Your task to perform on an android device: Clear the shopping cart on bestbuy.com. Image 0: 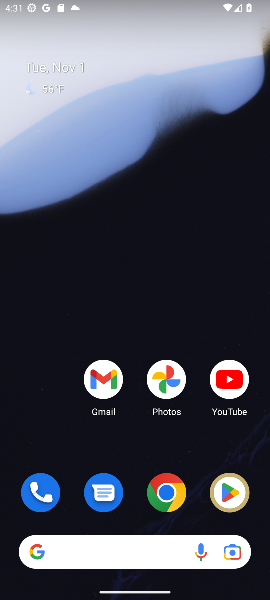
Step 0: drag from (127, 594) to (159, 166)
Your task to perform on an android device: Clear the shopping cart on bestbuy.com. Image 1: 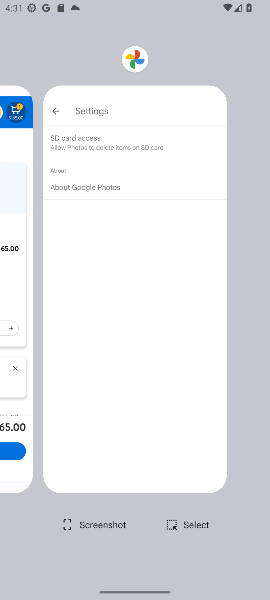
Step 1: drag from (40, 276) to (173, 281)
Your task to perform on an android device: Clear the shopping cart on bestbuy.com. Image 2: 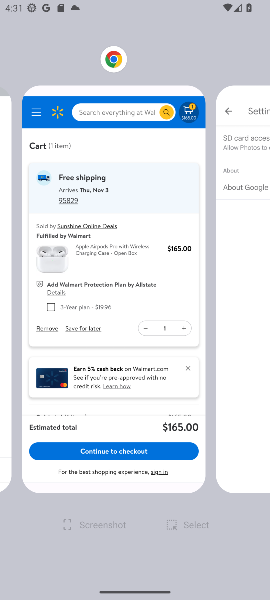
Step 2: drag from (19, 281) to (186, 282)
Your task to perform on an android device: Clear the shopping cart on bestbuy.com. Image 3: 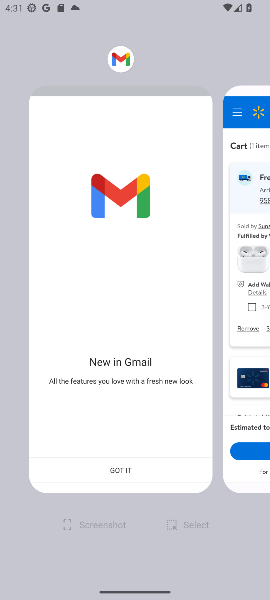
Step 3: drag from (52, 287) to (240, 301)
Your task to perform on an android device: Clear the shopping cart on bestbuy.com. Image 4: 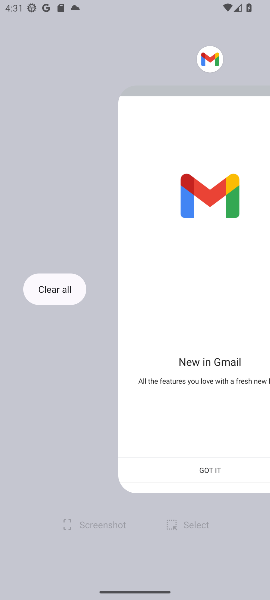
Step 4: drag from (37, 302) to (176, 298)
Your task to perform on an android device: Clear the shopping cart on bestbuy.com. Image 5: 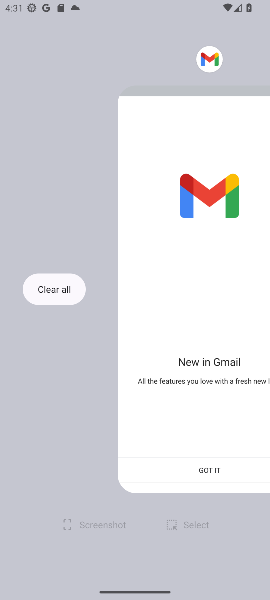
Step 5: click (63, 279)
Your task to perform on an android device: Clear the shopping cart on bestbuy.com. Image 6: 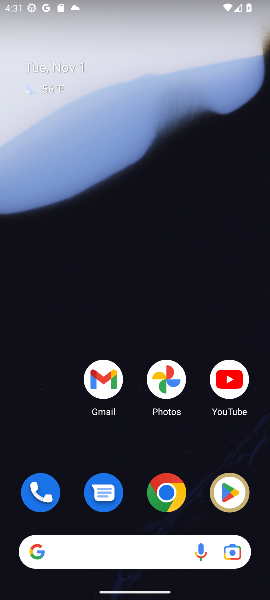
Step 6: click (169, 489)
Your task to perform on an android device: Clear the shopping cart on bestbuy.com. Image 7: 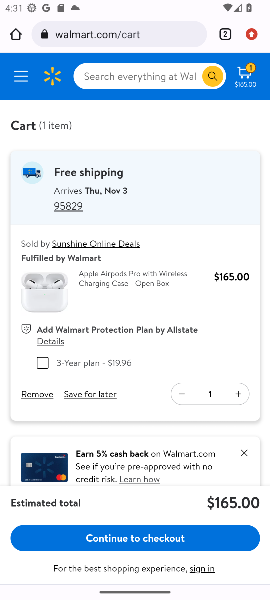
Step 7: click (106, 77)
Your task to perform on an android device: Clear the shopping cart on bestbuy.com. Image 8: 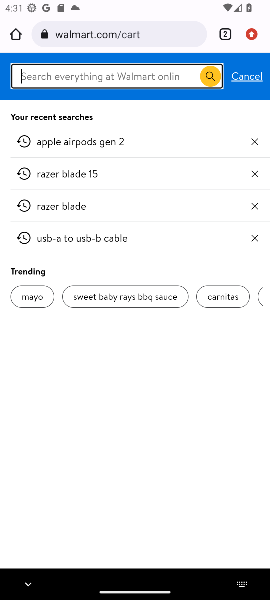
Step 8: click (57, 23)
Your task to perform on an android device: Clear the shopping cart on bestbuy.com. Image 9: 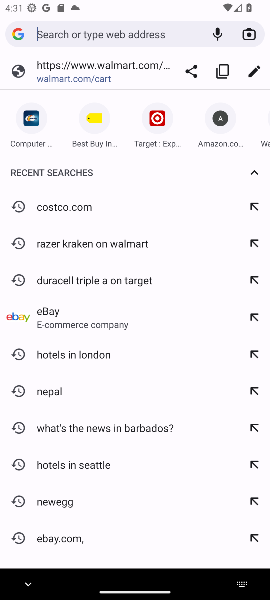
Step 9: type " bestbuy.com"
Your task to perform on an android device: Clear the shopping cart on bestbuy.com. Image 10: 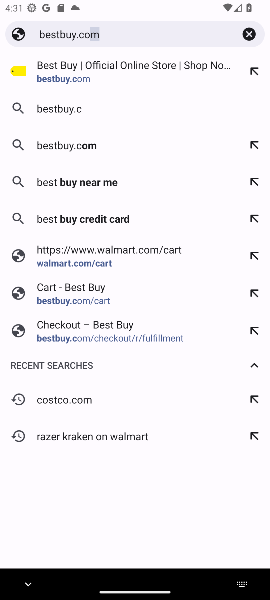
Step 10: type ""
Your task to perform on an android device: Clear the shopping cart on bestbuy.com. Image 11: 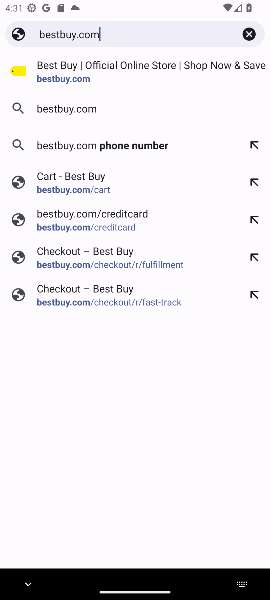
Step 11: click (179, 86)
Your task to perform on an android device: Clear the shopping cart on bestbuy.com. Image 12: 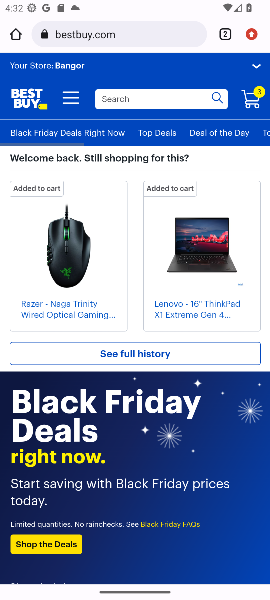
Step 12: click (261, 107)
Your task to perform on an android device: Clear the shopping cart on bestbuy.com. Image 13: 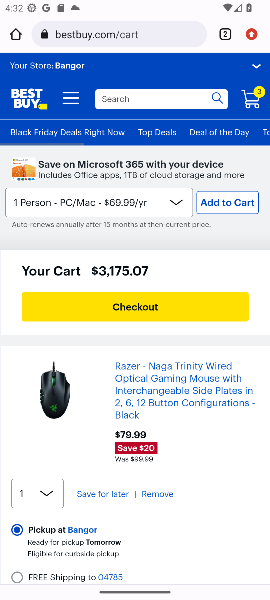
Step 13: drag from (141, 471) to (147, 319)
Your task to perform on an android device: Clear the shopping cart on bestbuy.com. Image 14: 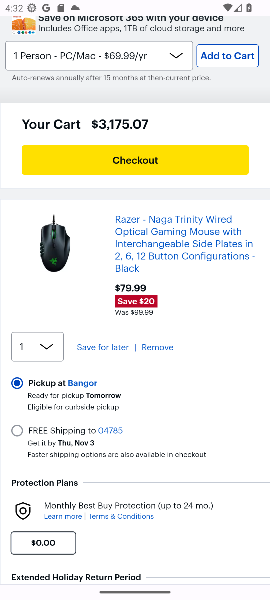
Step 14: click (47, 342)
Your task to perform on an android device: Clear the shopping cart on bestbuy.com. Image 15: 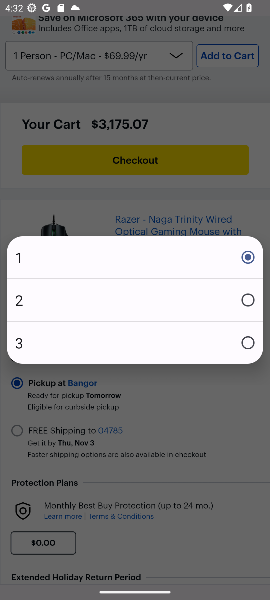
Step 15: click (93, 204)
Your task to perform on an android device: Clear the shopping cart on bestbuy.com. Image 16: 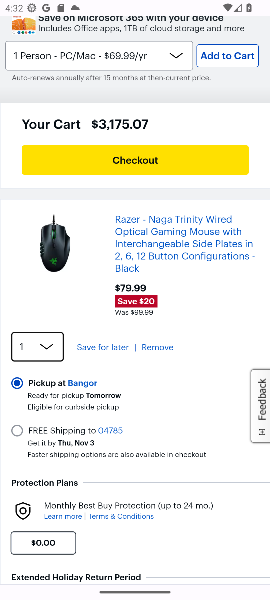
Step 16: click (147, 341)
Your task to perform on an android device: Clear the shopping cart on bestbuy.com. Image 17: 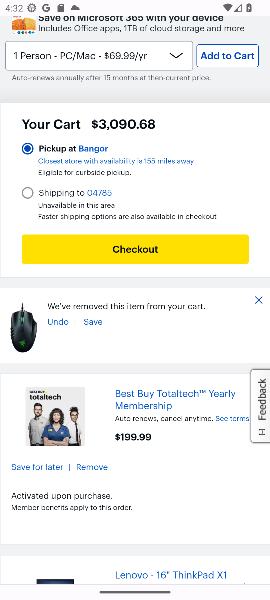
Step 17: drag from (161, 471) to (188, 226)
Your task to perform on an android device: Clear the shopping cart on bestbuy.com. Image 18: 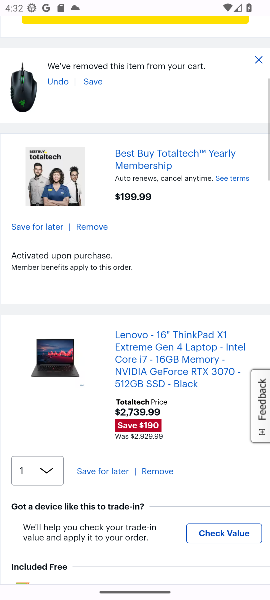
Step 18: drag from (192, 467) to (205, 247)
Your task to perform on an android device: Clear the shopping cart on bestbuy.com. Image 19: 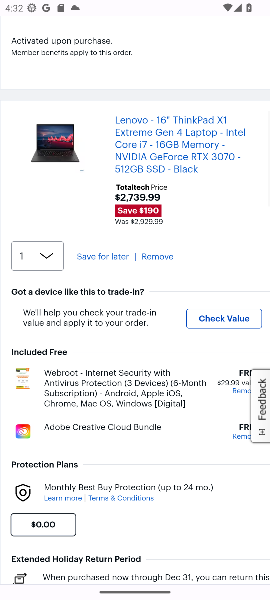
Step 19: drag from (141, 370) to (146, 309)
Your task to perform on an android device: Clear the shopping cart on bestbuy.com. Image 20: 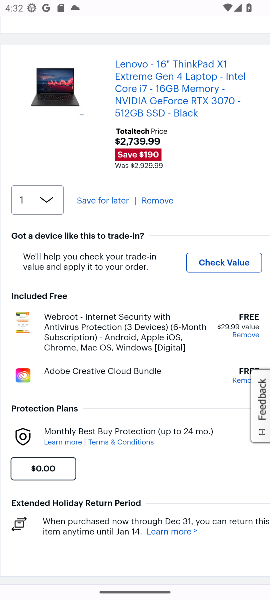
Step 20: click (154, 201)
Your task to perform on an android device: Clear the shopping cart on bestbuy.com. Image 21: 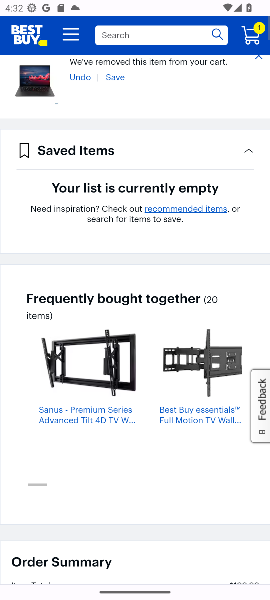
Step 21: drag from (165, 365) to (144, 564)
Your task to perform on an android device: Clear the shopping cart on bestbuy.com. Image 22: 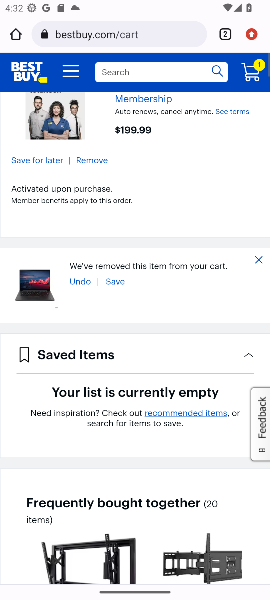
Step 22: click (256, 264)
Your task to perform on an android device: Clear the shopping cart on bestbuy.com. Image 23: 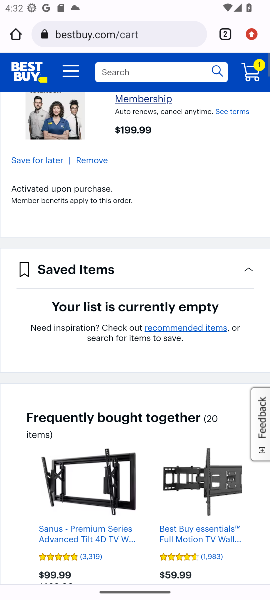
Step 23: drag from (200, 202) to (204, 370)
Your task to perform on an android device: Clear the shopping cart on bestbuy.com. Image 24: 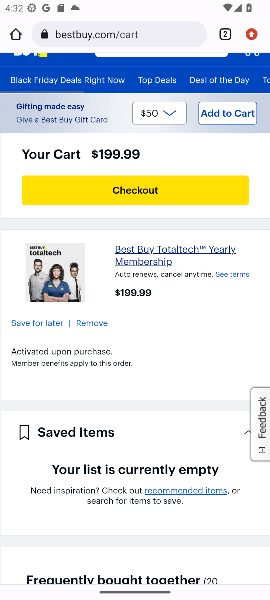
Step 24: click (103, 319)
Your task to perform on an android device: Clear the shopping cart on bestbuy.com. Image 25: 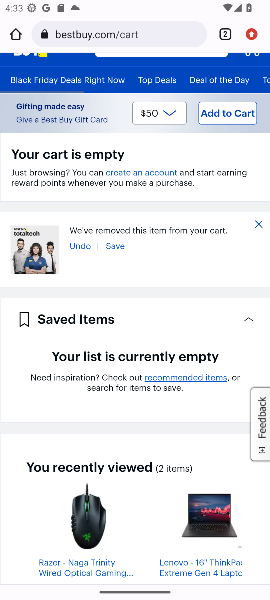
Step 25: click (252, 222)
Your task to perform on an android device: Clear the shopping cart on bestbuy.com. Image 26: 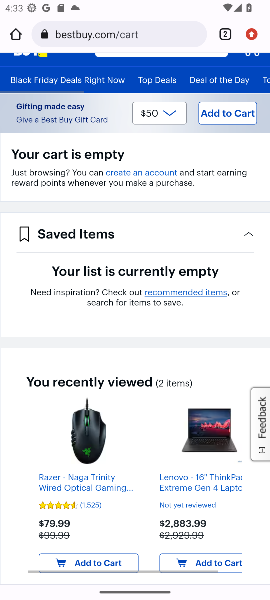
Step 26: drag from (207, 348) to (206, 227)
Your task to perform on an android device: Clear the shopping cart on bestbuy.com. Image 27: 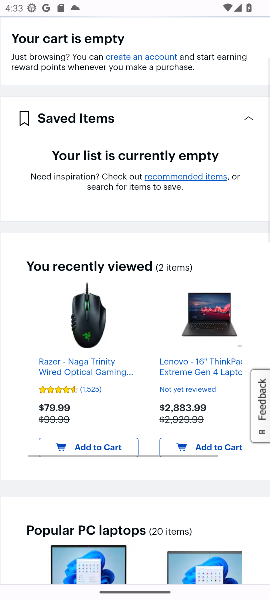
Step 27: press back button
Your task to perform on an android device: Clear the shopping cart on bestbuy.com. Image 28: 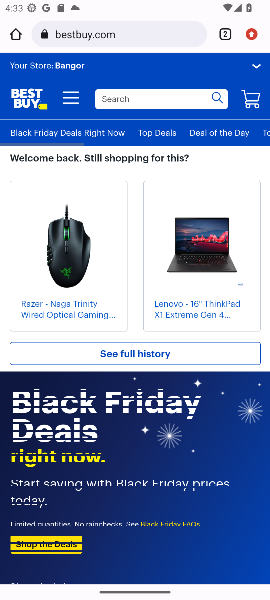
Step 28: drag from (175, 379) to (173, 205)
Your task to perform on an android device: Clear the shopping cart on bestbuy.com. Image 29: 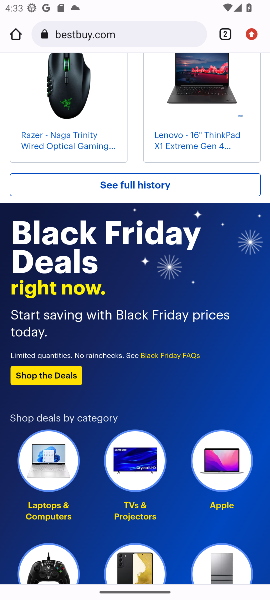
Step 29: drag from (180, 375) to (182, 167)
Your task to perform on an android device: Clear the shopping cart on bestbuy.com. Image 30: 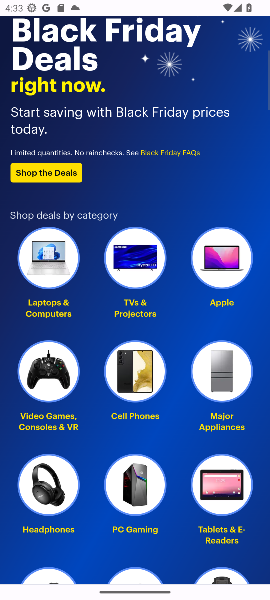
Step 30: drag from (148, 384) to (140, 183)
Your task to perform on an android device: Clear the shopping cart on bestbuy.com. Image 31: 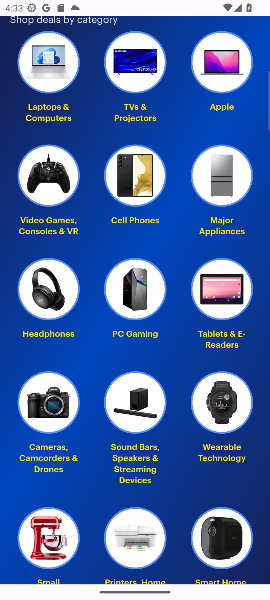
Step 31: drag from (137, 395) to (131, 193)
Your task to perform on an android device: Clear the shopping cart on bestbuy.com. Image 32: 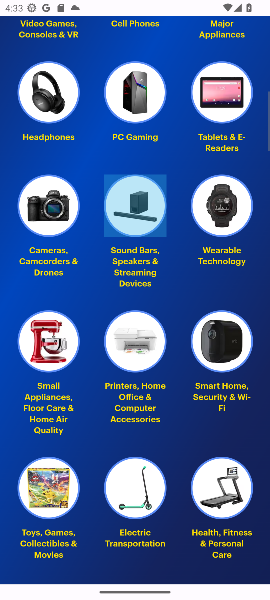
Step 32: drag from (176, 389) to (160, 236)
Your task to perform on an android device: Clear the shopping cart on bestbuy.com. Image 33: 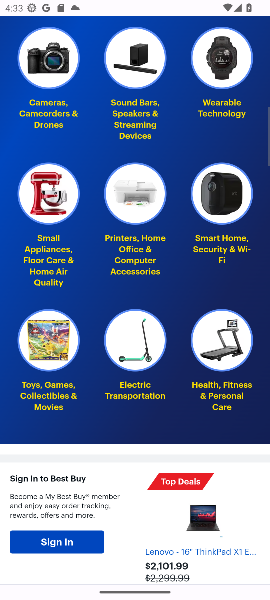
Step 33: drag from (174, 425) to (135, 243)
Your task to perform on an android device: Clear the shopping cart on bestbuy.com. Image 34: 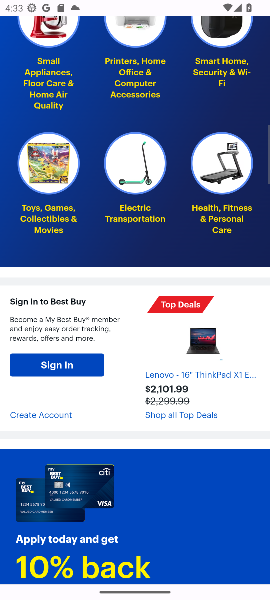
Step 34: drag from (160, 457) to (128, 267)
Your task to perform on an android device: Clear the shopping cart on bestbuy.com. Image 35: 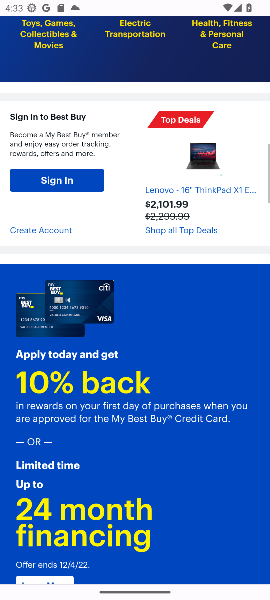
Step 35: drag from (157, 468) to (132, 274)
Your task to perform on an android device: Clear the shopping cart on bestbuy.com. Image 36: 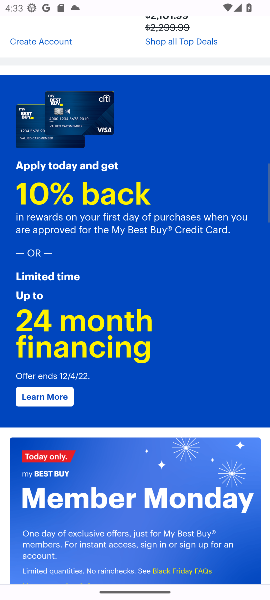
Step 36: drag from (150, 426) to (139, 243)
Your task to perform on an android device: Clear the shopping cart on bestbuy.com. Image 37: 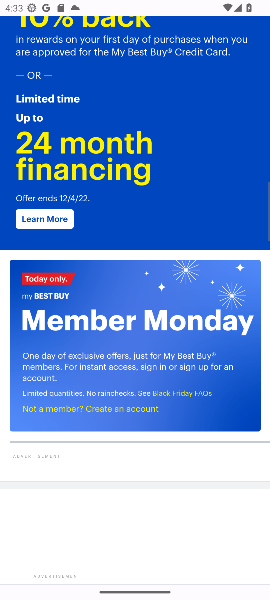
Step 37: drag from (173, 418) to (167, 256)
Your task to perform on an android device: Clear the shopping cart on bestbuy.com. Image 38: 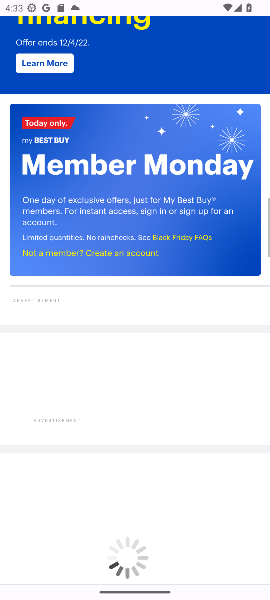
Step 38: drag from (176, 428) to (165, 243)
Your task to perform on an android device: Clear the shopping cart on bestbuy.com. Image 39: 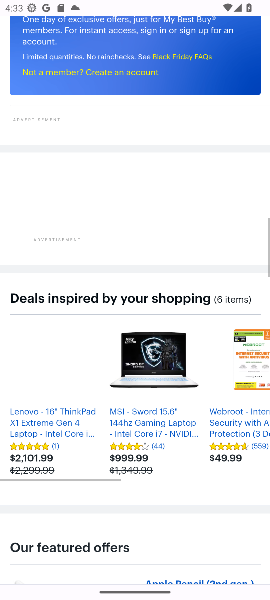
Step 39: drag from (155, 408) to (164, 230)
Your task to perform on an android device: Clear the shopping cart on bestbuy.com. Image 40: 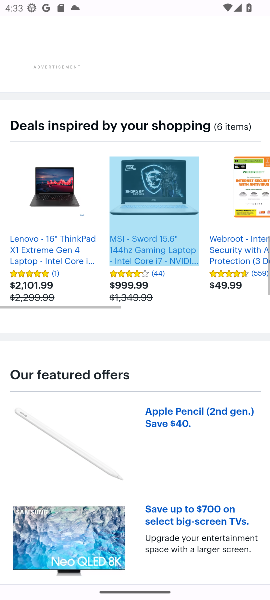
Step 40: drag from (155, 406) to (156, 239)
Your task to perform on an android device: Clear the shopping cart on bestbuy.com. Image 41: 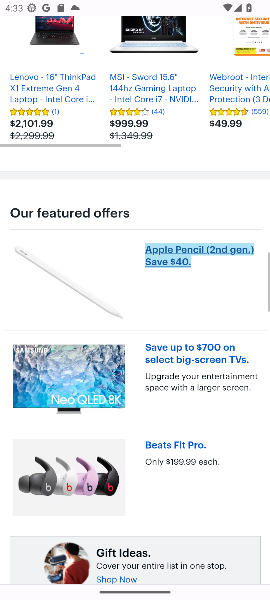
Step 41: drag from (148, 395) to (152, 228)
Your task to perform on an android device: Clear the shopping cart on bestbuy.com. Image 42: 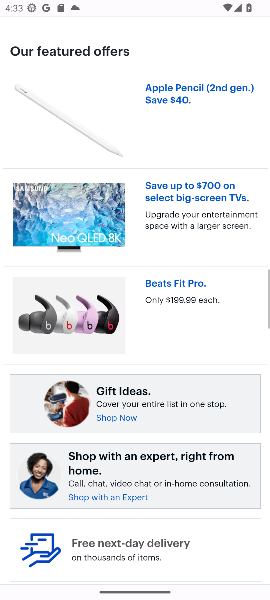
Step 42: drag from (151, 400) to (156, 250)
Your task to perform on an android device: Clear the shopping cart on bestbuy.com. Image 43: 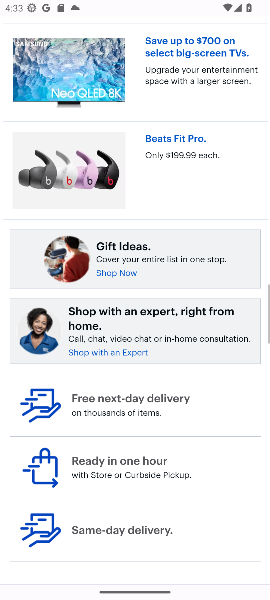
Step 43: drag from (97, 381) to (114, 283)
Your task to perform on an android device: Clear the shopping cart on bestbuy.com. Image 44: 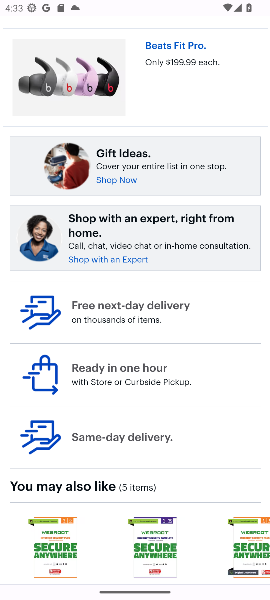
Step 44: drag from (152, 370) to (131, 215)
Your task to perform on an android device: Clear the shopping cart on bestbuy.com. Image 45: 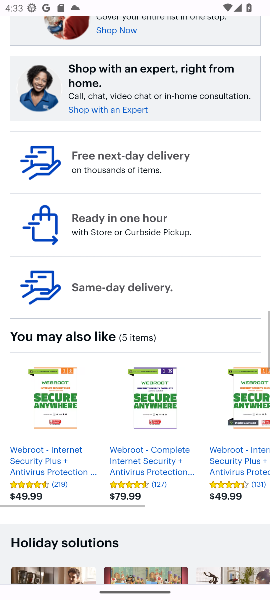
Step 45: drag from (123, 384) to (128, 248)
Your task to perform on an android device: Clear the shopping cart on bestbuy.com. Image 46: 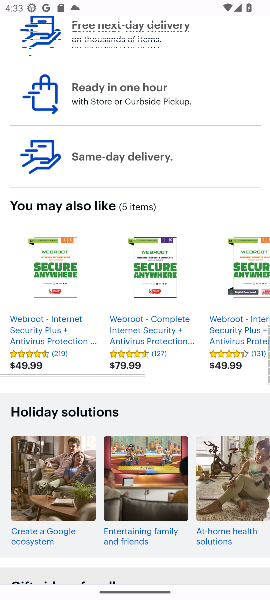
Step 46: drag from (154, 437) to (148, 283)
Your task to perform on an android device: Clear the shopping cart on bestbuy.com. Image 47: 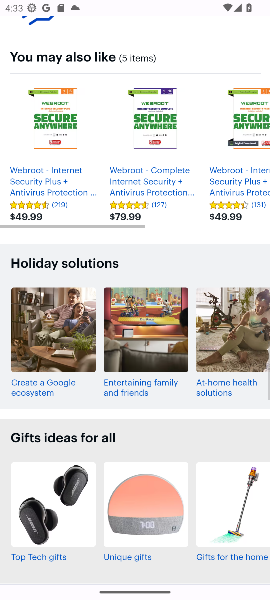
Step 47: drag from (135, 376) to (130, 234)
Your task to perform on an android device: Clear the shopping cart on bestbuy.com. Image 48: 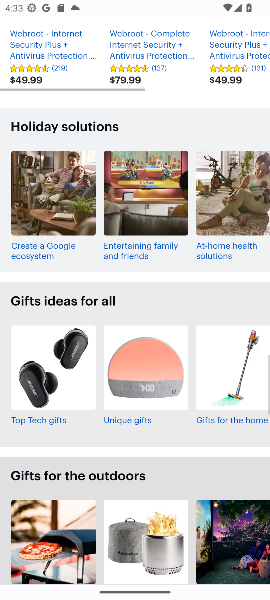
Step 48: drag from (164, 322) to (160, 233)
Your task to perform on an android device: Clear the shopping cart on bestbuy.com. Image 49: 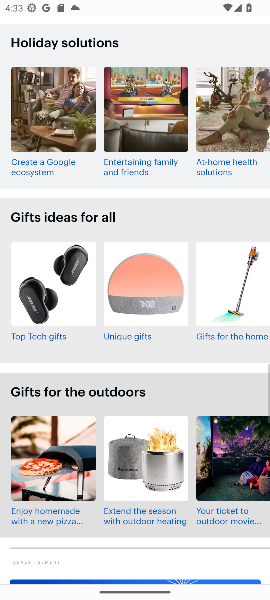
Step 49: drag from (165, 335) to (163, 221)
Your task to perform on an android device: Clear the shopping cart on bestbuy.com. Image 50: 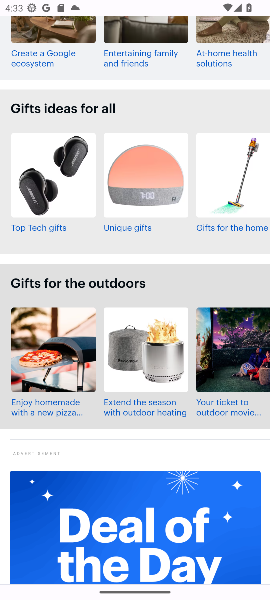
Step 50: drag from (153, 348) to (155, 156)
Your task to perform on an android device: Clear the shopping cart on bestbuy.com. Image 51: 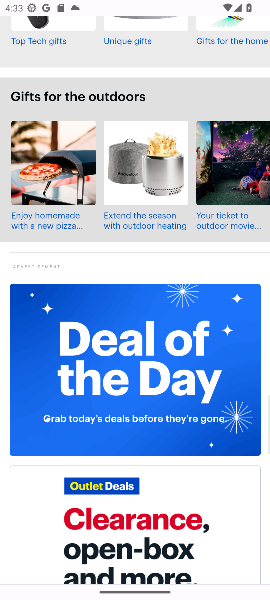
Step 51: drag from (189, 376) to (194, 170)
Your task to perform on an android device: Clear the shopping cart on bestbuy.com. Image 52: 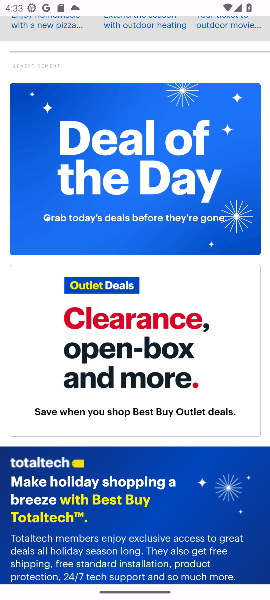
Step 52: drag from (146, 430) to (137, 252)
Your task to perform on an android device: Clear the shopping cart on bestbuy.com. Image 53: 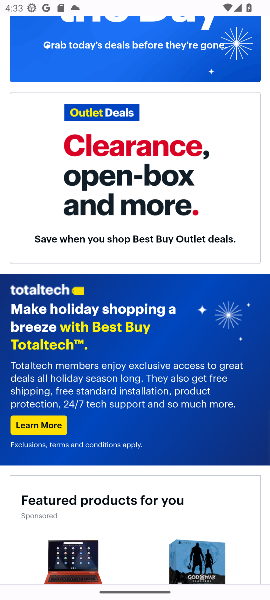
Step 53: drag from (137, 380) to (168, 244)
Your task to perform on an android device: Clear the shopping cart on bestbuy.com. Image 54: 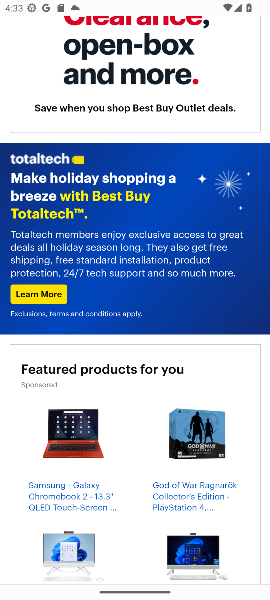
Step 54: drag from (138, 380) to (181, 173)
Your task to perform on an android device: Clear the shopping cart on bestbuy.com. Image 55: 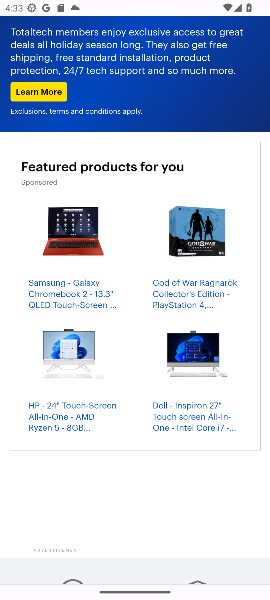
Step 55: drag from (145, 420) to (161, 136)
Your task to perform on an android device: Clear the shopping cart on bestbuy.com. Image 56: 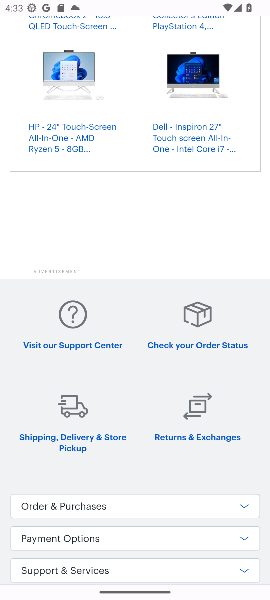
Step 56: drag from (116, 444) to (148, 144)
Your task to perform on an android device: Clear the shopping cart on bestbuy.com. Image 57: 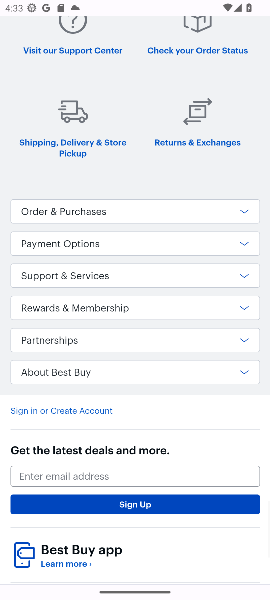
Step 57: drag from (158, 335) to (218, 182)
Your task to perform on an android device: Clear the shopping cart on bestbuy.com. Image 58: 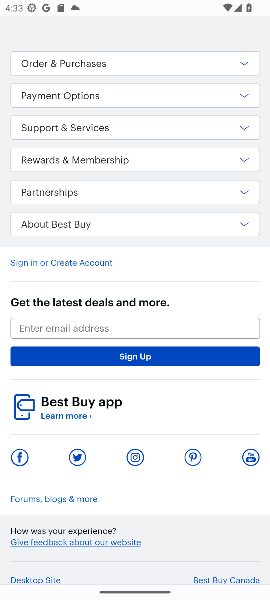
Step 58: drag from (155, 383) to (200, 171)
Your task to perform on an android device: Clear the shopping cart on bestbuy.com. Image 59: 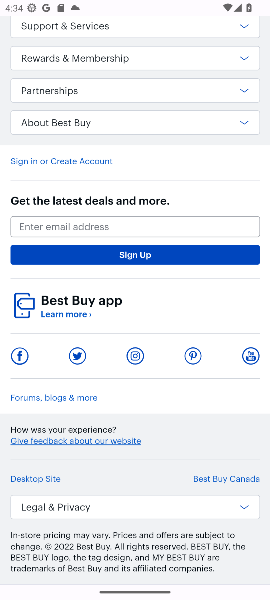
Step 59: drag from (156, 400) to (192, 248)
Your task to perform on an android device: Clear the shopping cart on bestbuy.com. Image 60: 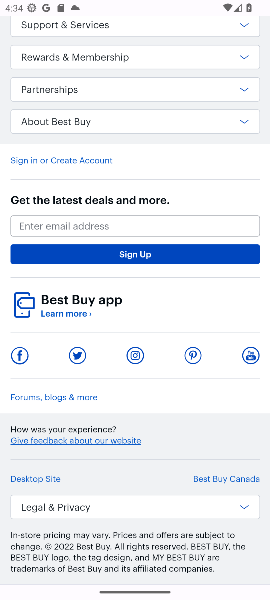
Step 60: click (162, 284)
Your task to perform on an android device: Clear the shopping cart on bestbuy.com. Image 61: 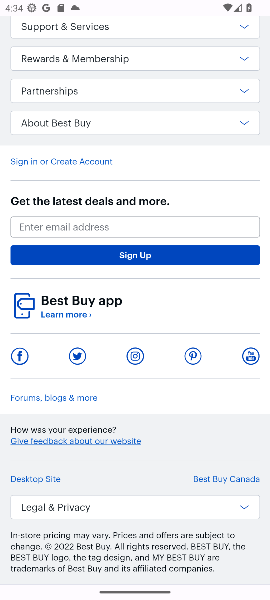
Step 61: drag from (113, 405) to (168, 195)
Your task to perform on an android device: Clear the shopping cart on bestbuy.com. Image 62: 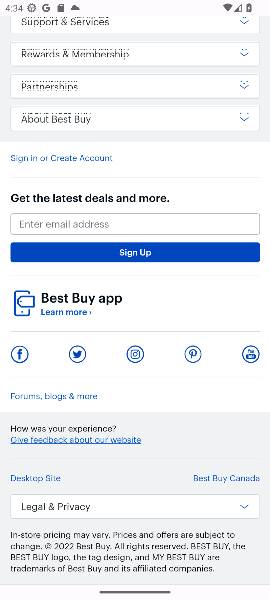
Step 62: drag from (153, 374) to (183, 243)
Your task to perform on an android device: Clear the shopping cart on bestbuy.com. Image 63: 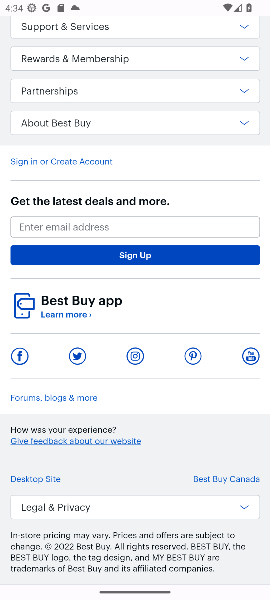
Step 63: drag from (163, 422) to (197, 262)
Your task to perform on an android device: Clear the shopping cart on bestbuy.com. Image 64: 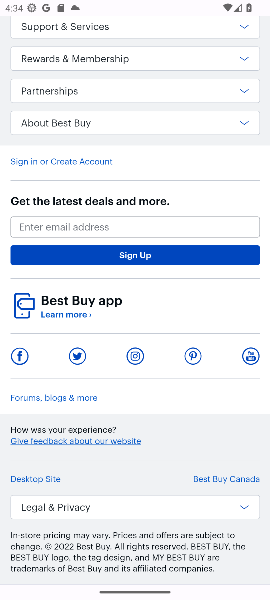
Step 64: drag from (180, 433) to (235, 262)
Your task to perform on an android device: Clear the shopping cart on bestbuy.com. Image 65: 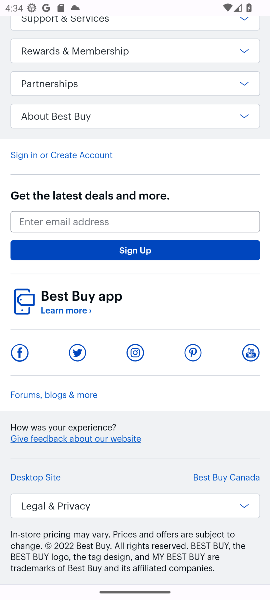
Step 65: drag from (165, 452) to (199, 254)
Your task to perform on an android device: Clear the shopping cart on bestbuy.com. Image 66: 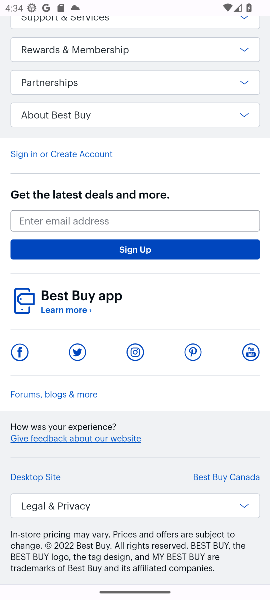
Step 66: drag from (170, 398) to (203, 200)
Your task to perform on an android device: Clear the shopping cart on bestbuy.com. Image 67: 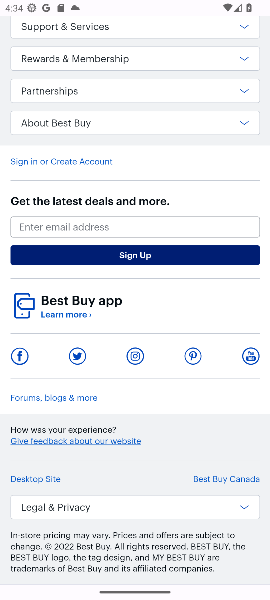
Step 67: press back button
Your task to perform on an android device: Clear the shopping cart on bestbuy.com. Image 68: 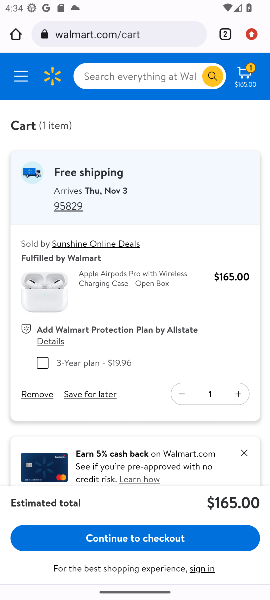
Step 68: click (186, 394)
Your task to perform on an android device: Clear the shopping cart on bestbuy.com. Image 69: 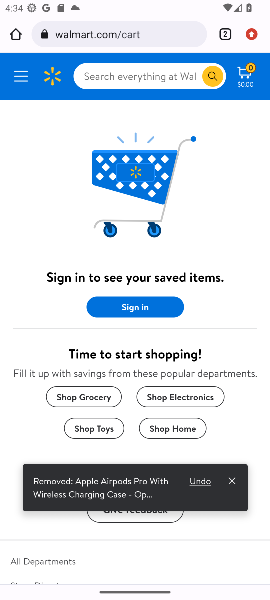
Step 69: click (120, 39)
Your task to perform on an android device: Clear the shopping cart on bestbuy.com. Image 70: 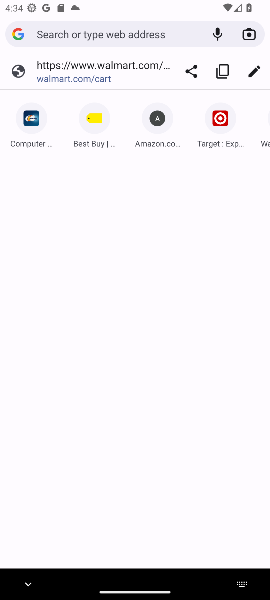
Step 70: click (111, 39)
Your task to perform on an android device: Clear the shopping cart on bestbuy.com. Image 71: 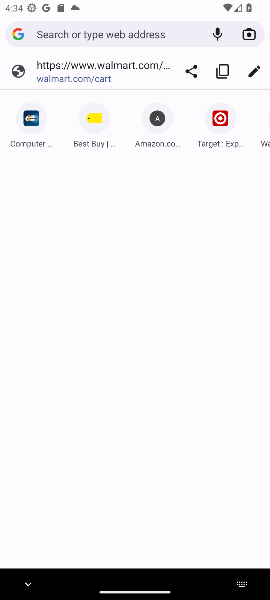
Step 71: type "bestbuy.com"
Your task to perform on an android device: Clear the shopping cart on bestbuy.com. Image 72: 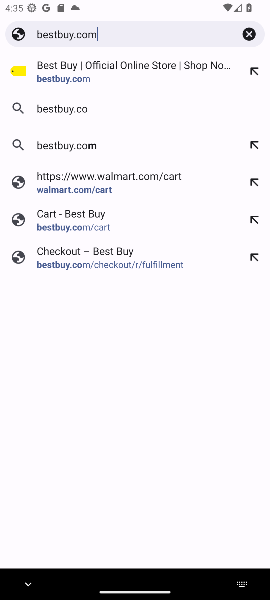
Step 72: type ""
Your task to perform on an android device: Clear the shopping cart on bestbuy.com. Image 73: 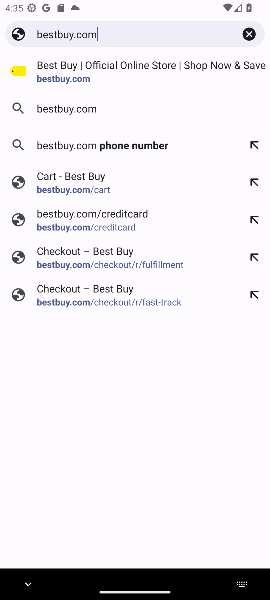
Step 73: click (156, 64)
Your task to perform on an android device: Clear the shopping cart on bestbuy.com. Image 74: 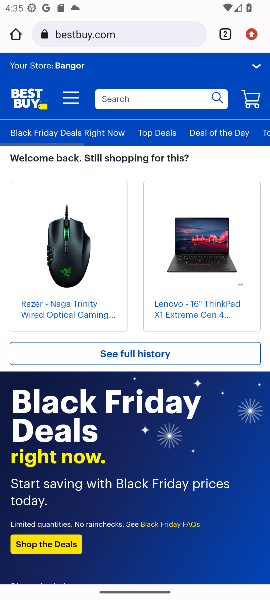
Step 74: drag from (159, 271) to (156, 199)
Your task to perform on an android device: Clear the shopping cart on bestbuy.com. Image 75: 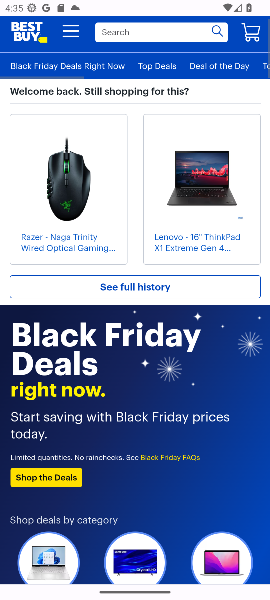
Step 75: click (250, 92)
Your task to perform on an android device: Clear the shopping cart on bestbuy.com. Image 76: 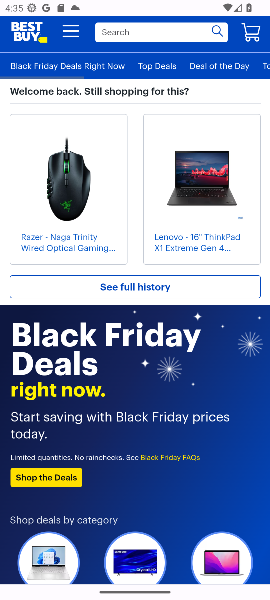
Step 76: click (258, 28)
Your task to perform on an android device: Clear the shopping cart on bestbuy.com. Image 77: 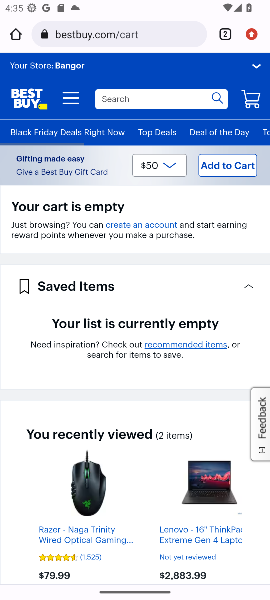
Step 77: task complete